Your task to perform on an android device: open a bookmark in the chrome app Image 0: 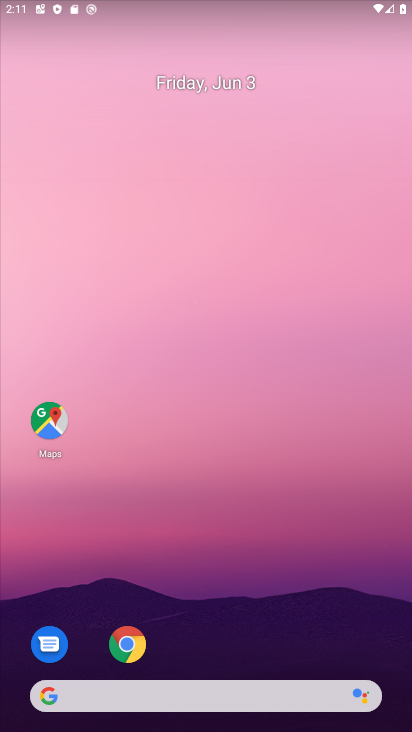
Step 0: click (125, 631)
Your task to perform on an android device: open a bookmark in the chrome app Image 1: 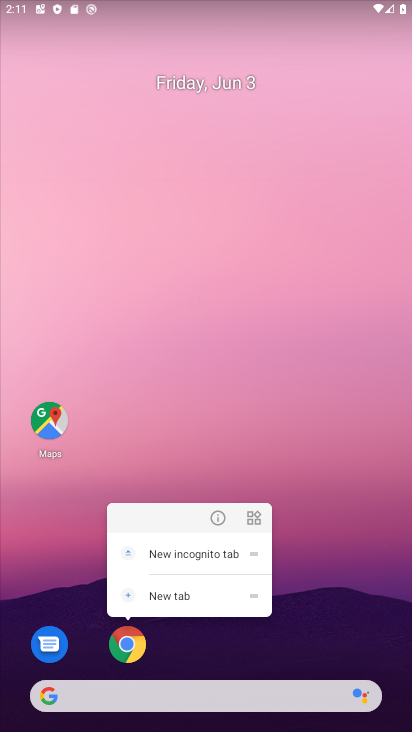
Step 1: click (128, 639)
Your task to perform on an android device: open a bookmark in the chrome app Image 2: 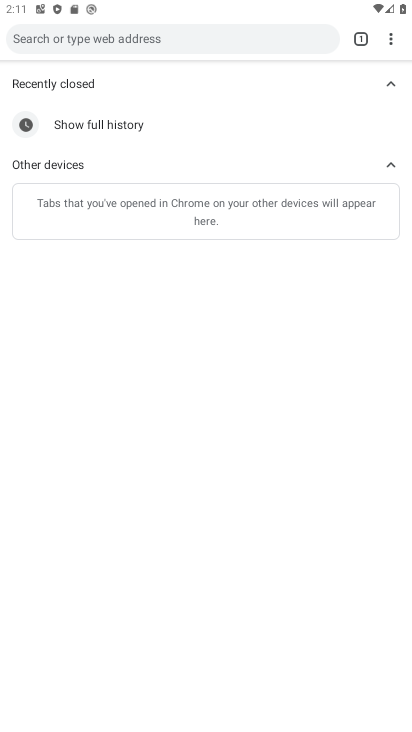
Step 2: task complete